Your task to perform on an android device: Search for sushi restaurants on Maps Image 0: 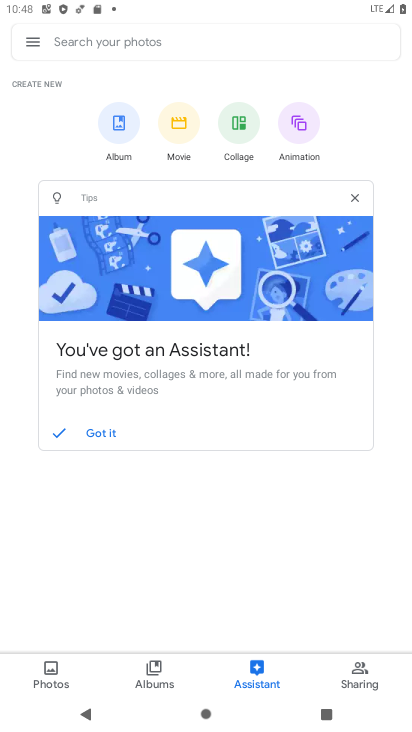
Step 0: press home button
Your task to perform on an android device: Search for sushi restaurants on Maps Image 1: 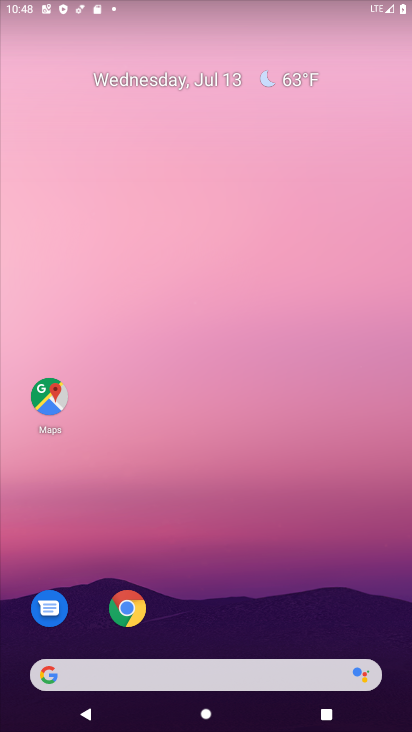
Step 1: drag from (229, 532) to (362, 40)
Your task to perform on an android device: Search for sushi restaurants on Maps Image 2: 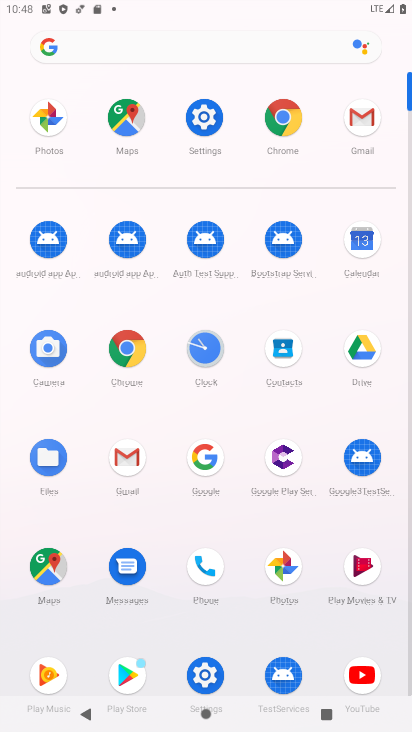
Step 2: click (125, 112)
Your task to perform on an android device: Search for sushi restaurants on Maps Image 3: 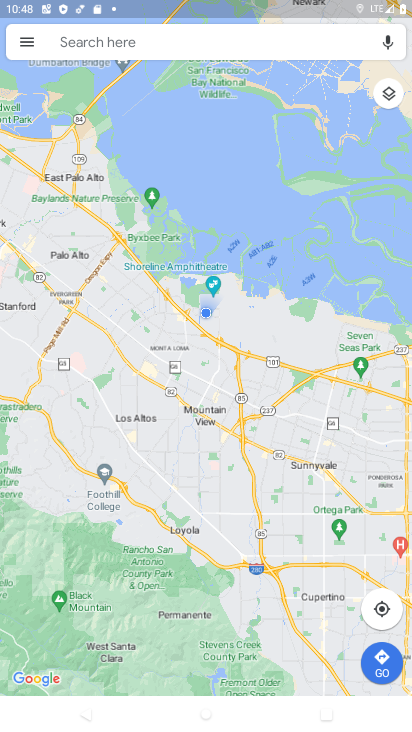
Step 3: click (198, 43)
Your task to perform on an android device: Search for sushi restaurants on Maps Image 4: 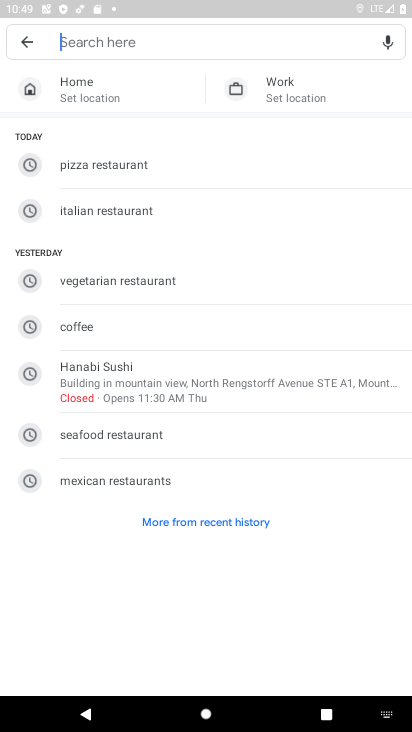
Step 4: type " sushi restaurants"
Your task to perform on an android device: Search for sushi restaurants on Maps Image 5: 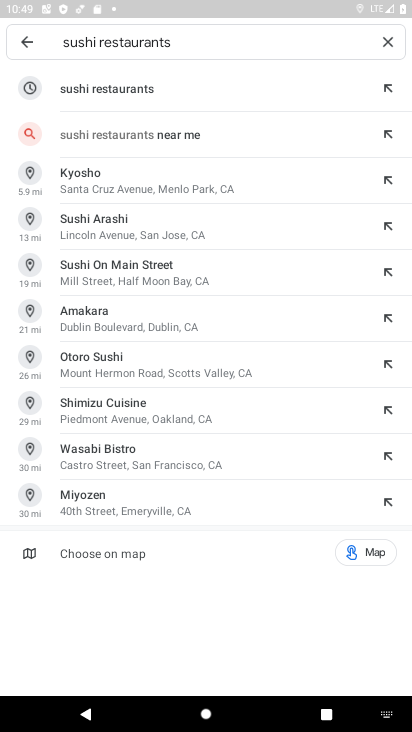
Step 5: click (149, 91)
Your task to perform on an android device: Search for sushi restaurants on Maps Image 6: 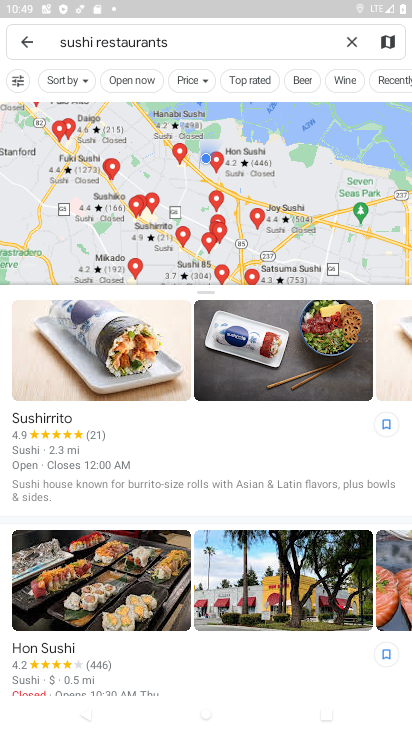
Step 6: task complete